Your task to perform on an android device: Go to ESPN.com Image 0: 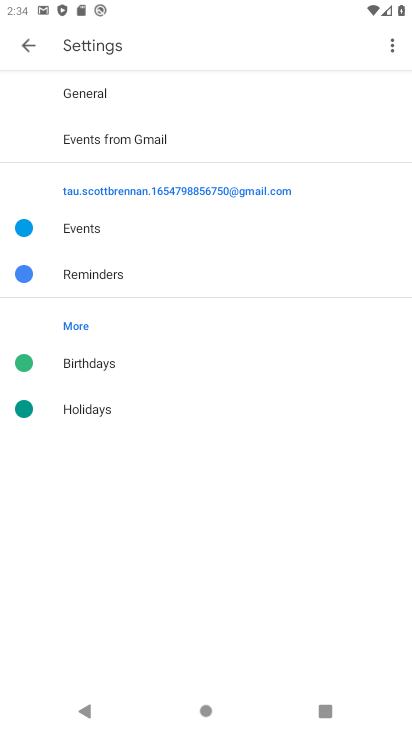
Step 0: press back button
Your task to perform on an android device: Go to ESPN.com Image 1: 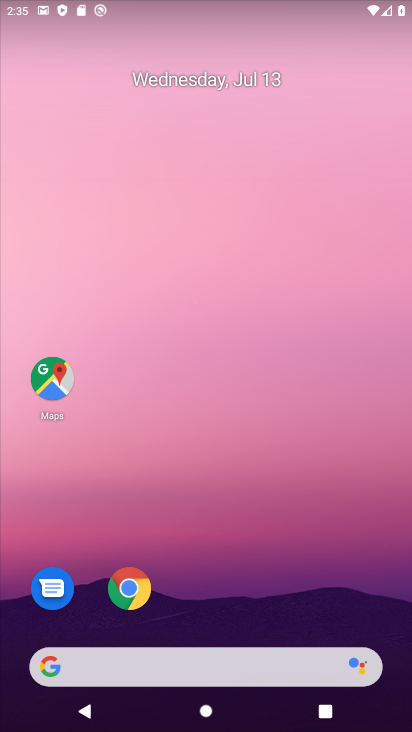
Step 1: drag from (249, 505) to (170, 133)
Your task to perform on an android device: Go to ESPN.com Image 2: 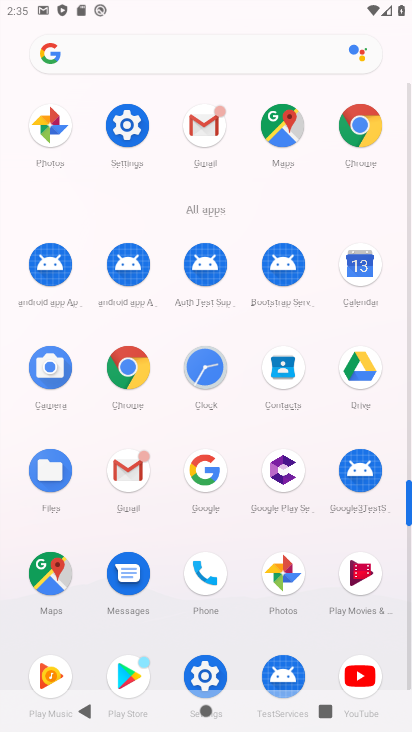
Step 2: click (353, 118)
Your task to perform on an android device: Go to ESPN.com Image 3: 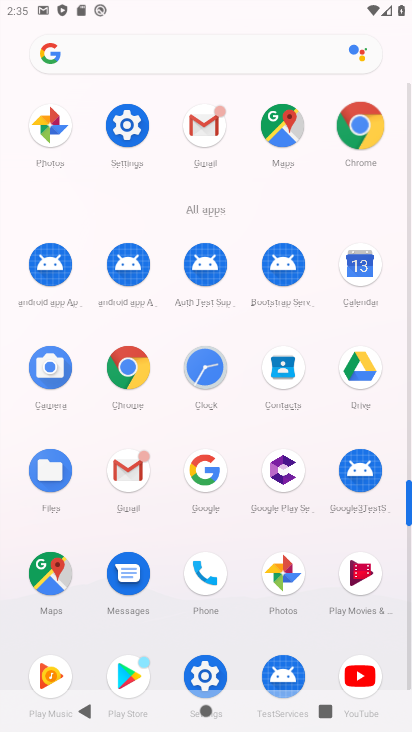
Step 3: click (351, 120)
Your task to perform on an android device: Go to ESPN.com Image 4: 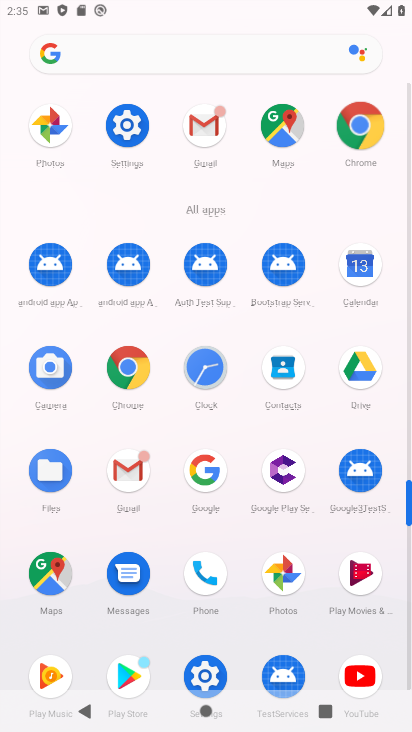
Step 4: click (354, 124)
Your task to perform on an android device: Go to ESPN.com Image 5: 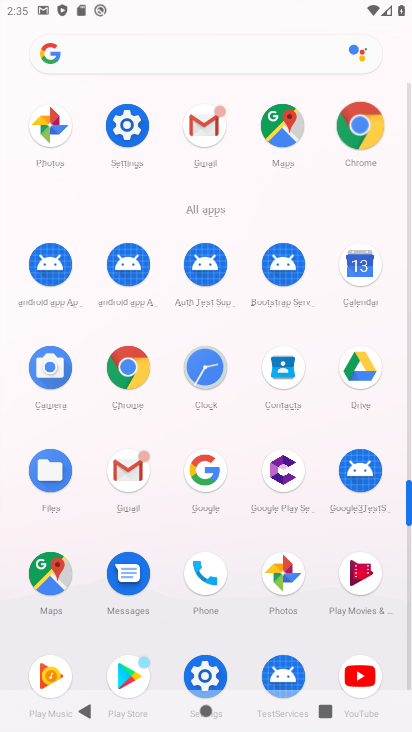
Step 5: click (358, 124)
Your task to perform on an android device: Go to ESPN.com Image 6: 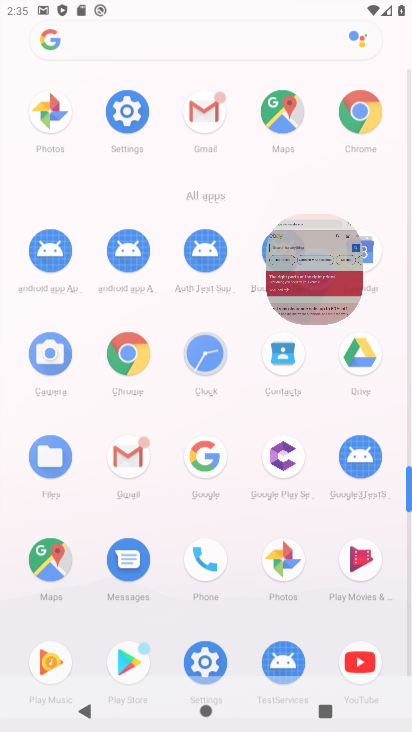
Step 6: click (360, 125)
Your task to perform on an android device: Go to ESPN.com Image 7: 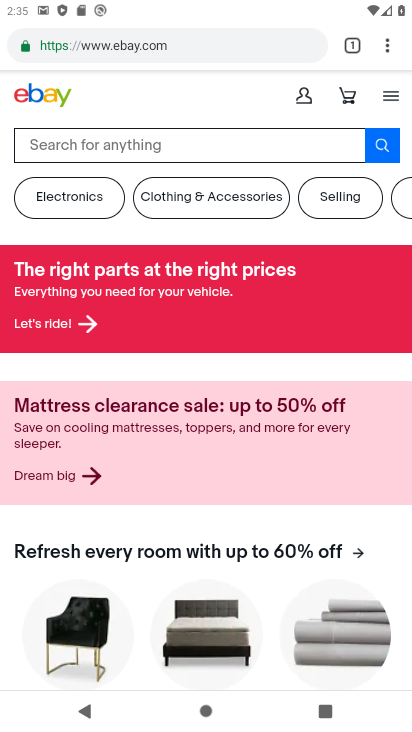
Step 7: click (360, 128)
Your task to perform on an android device: Go to ESPN.com Image 8: 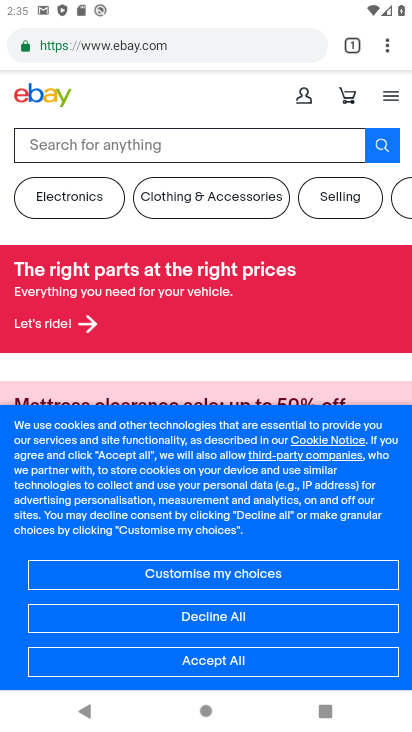
Step 8: drag from (390, 36) to (204, 93)
Your task to perform on an android device: Go to ESPN.com Image 9: 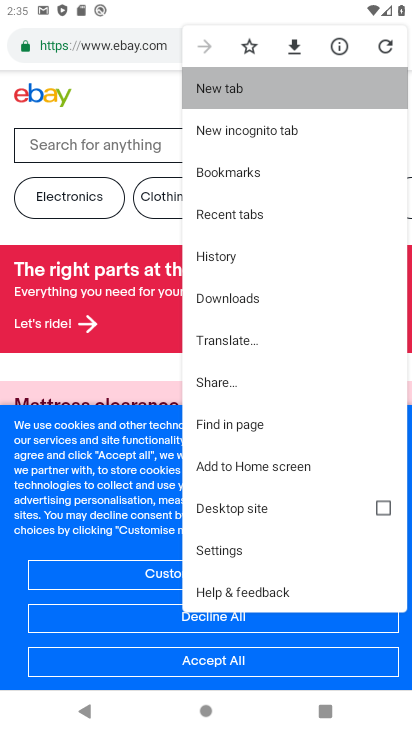
Step 9: click (204, 92)
Your task to perform on an android device: Go to ESPN.com Image 10: 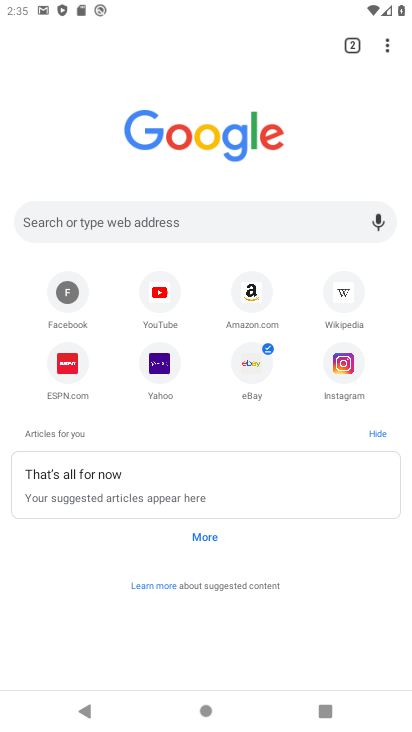
Step 10: click (66, 358)
Your task to perform on an android device: Go to ESPN.com Image 11: 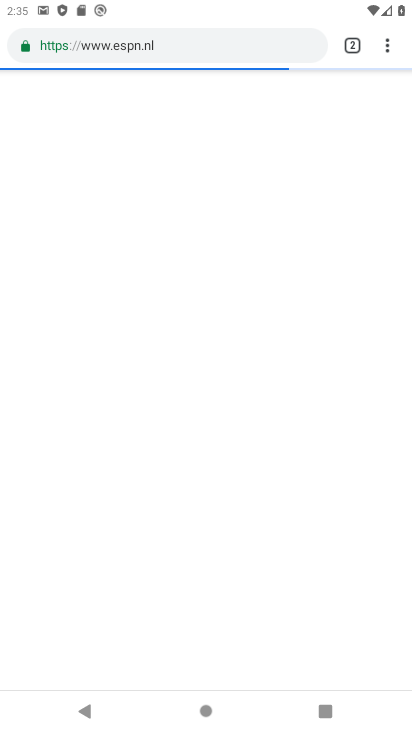
Step 11: task complete